Your task to perform on an android device: turn off sleep mode Image 0: 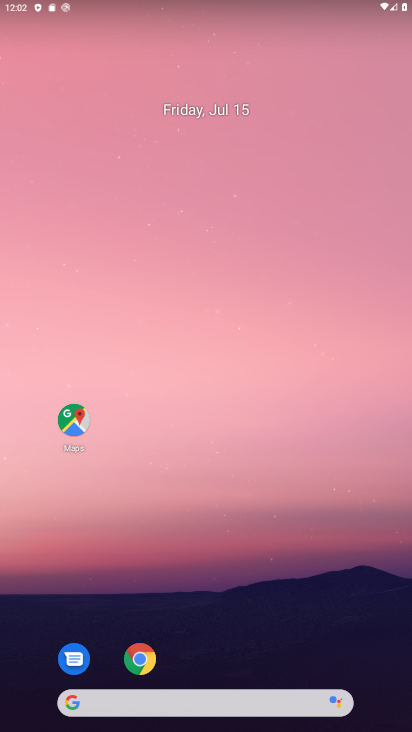
Step 0: drag from (220, 649) to (182, 158)
Your task to perform on an android device: turn off sleep mode Image 1: 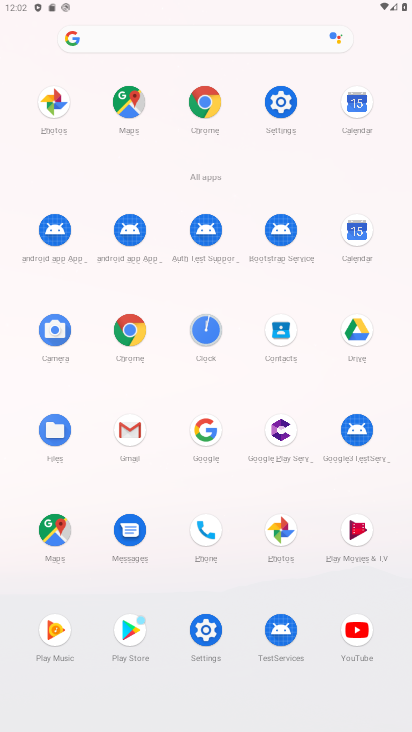
Step 1: click (199, 629)
Your task to perform on an android device: turn off sleep mode Image 2: 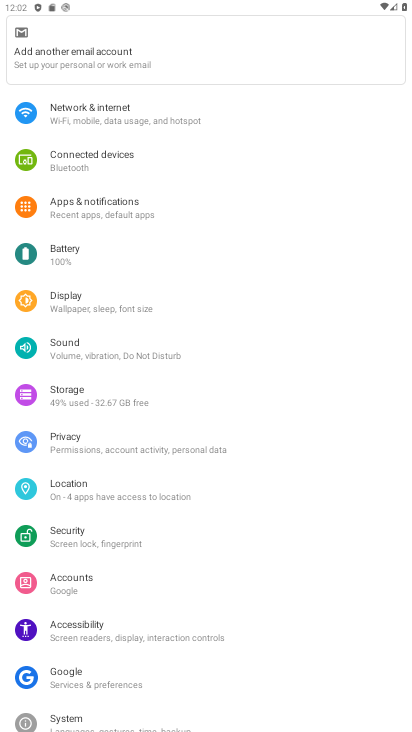
Step 2: click (127, 289)
Your task to perform on an android device: turn off sleep mode Image 3: 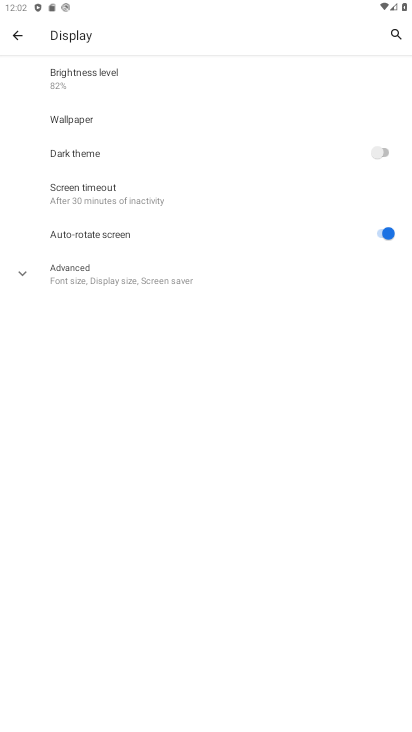
Step 3: click (104, 207)
Your task to perform on an android device: turn off sleep mode Image 4: 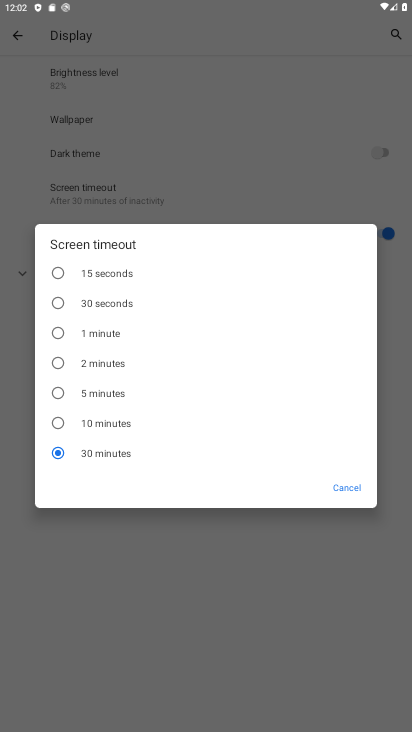
Step 4: click (103, 361)
Your task to perform on an android device: turn off sleep mode Image 5: 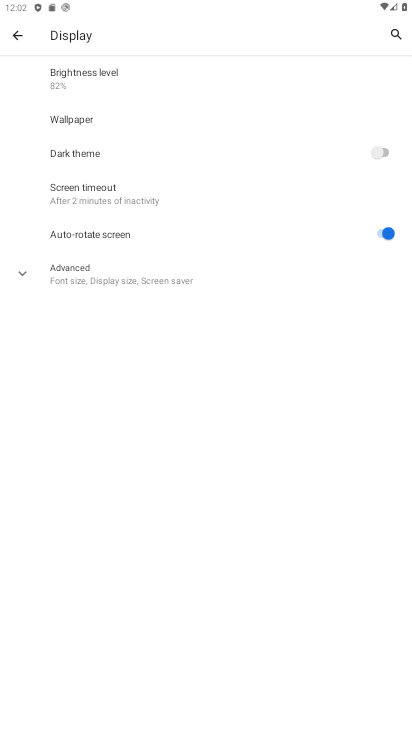
Step 5: task complete